Your task to perform on an android device: Go to notification settings Image 0: 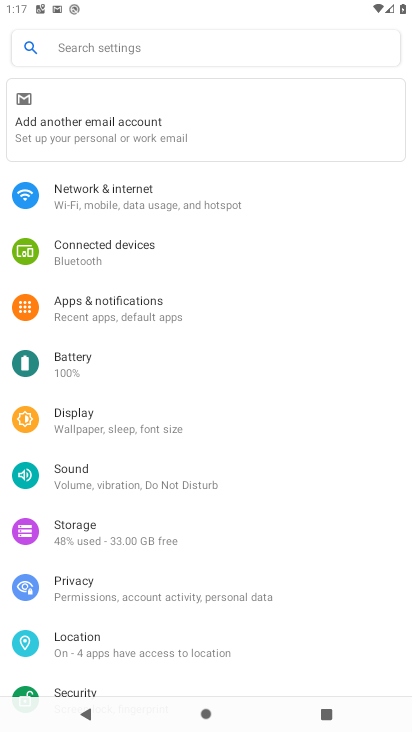
Step 0: click (143, 306)
Your task to perform on an android device: Go to notification settings Image 1: 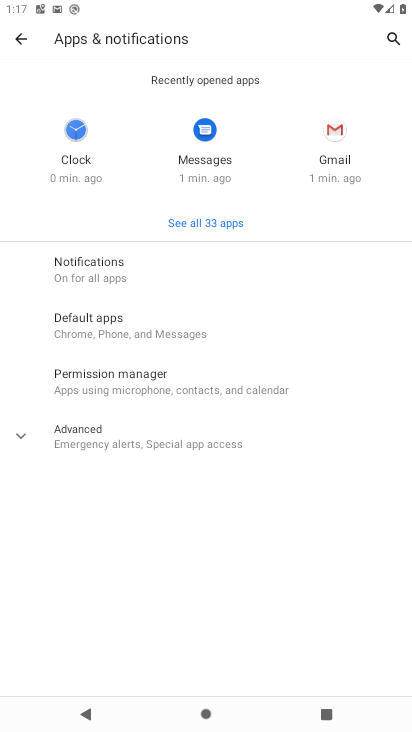
Step 1: click (133, 430)
Your task to perform on an android device: Go to notification settings Image 2: 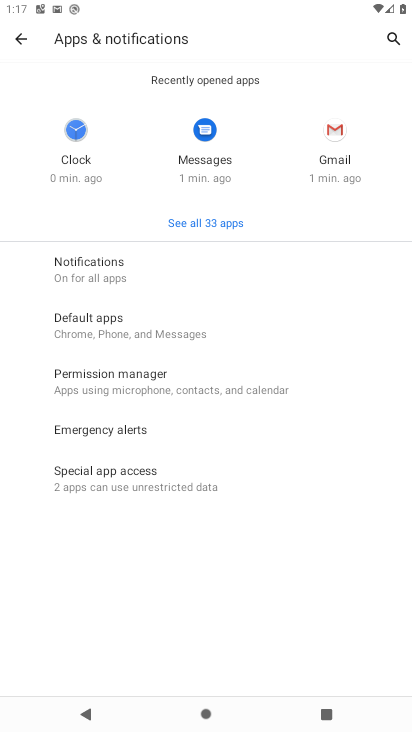
Step 2: click (83, 253)
Your task to perform on an android device: Go to notification settings Image 3: 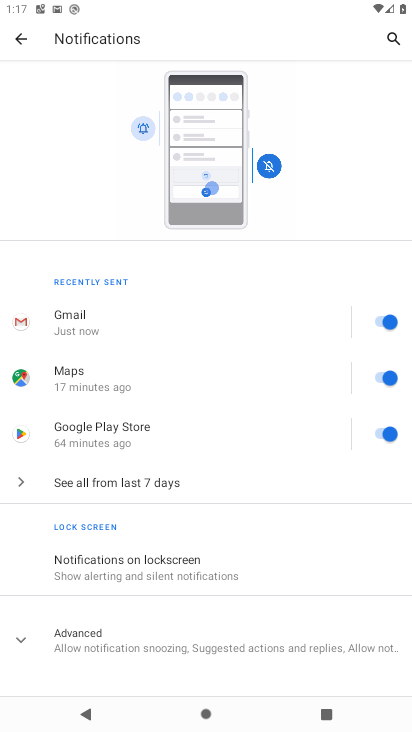
Step 3: task complete